Your task to perform on an android device: change text size in settings app Image 0: 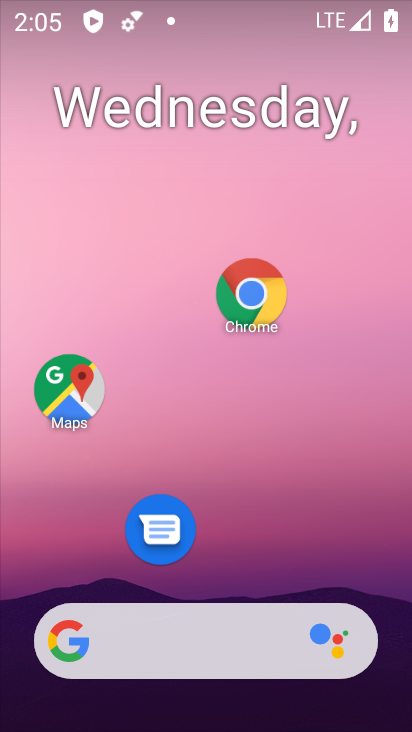
Step 0: drag from (177, 590) to (132, 204)
Your task to perform on an android device: change text size in settings app Image 1: 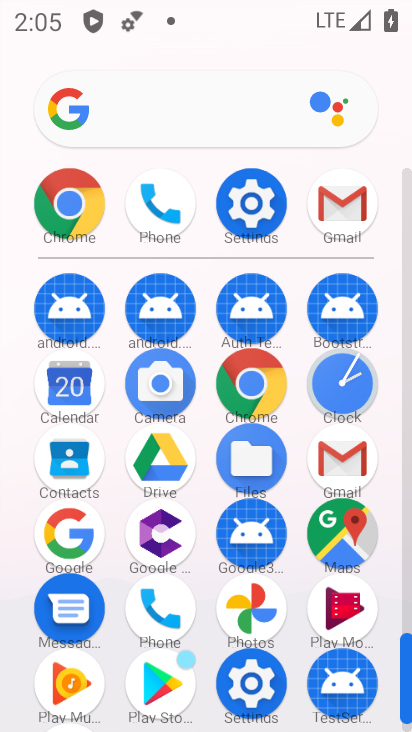
Step 1: click (246, 211)
Your task to perform on an android device: change text size in settings app Image 2: 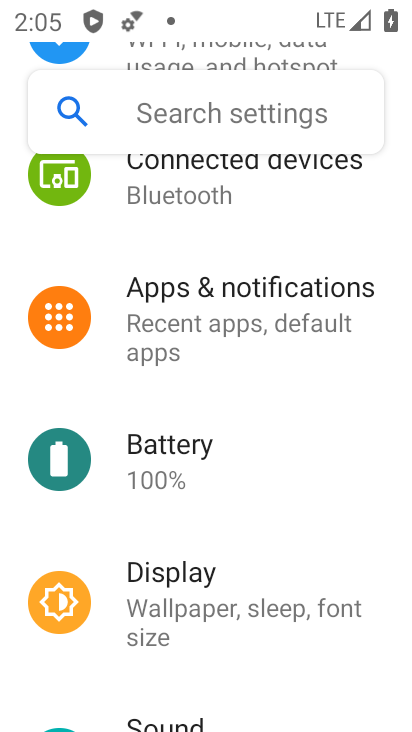
Step 2: click (220, 595)
Your task to perform on an android device: change text size in settings app Image 3: 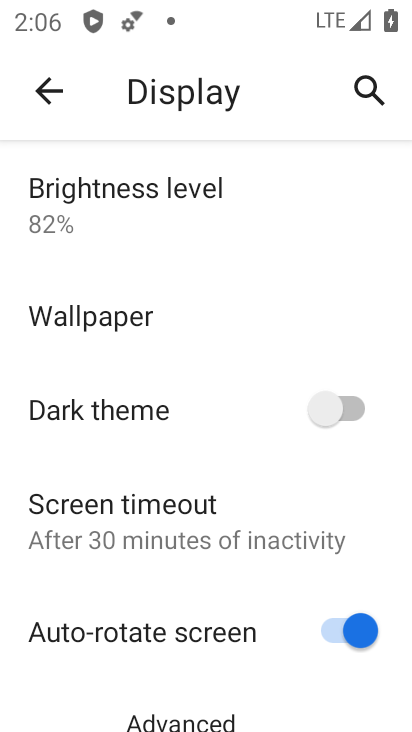
Step 3: drag from (215, 593) to (249, 306)
Your task to perform on an android device: change text size in settings app Image 4: 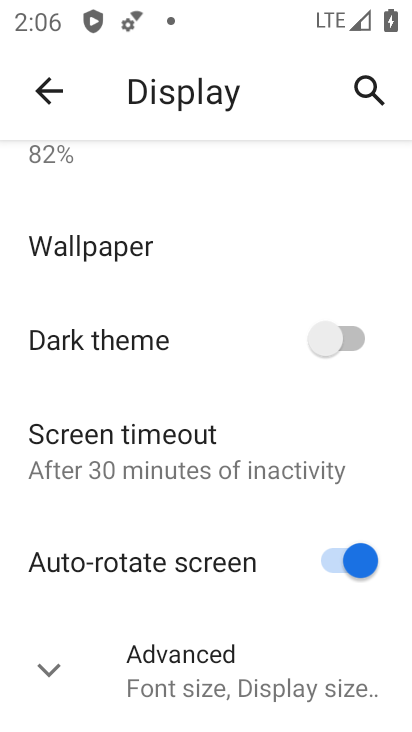
Step 4: click (181, 686)
Your task to perform on an android device: change text size in settings app Image 5: 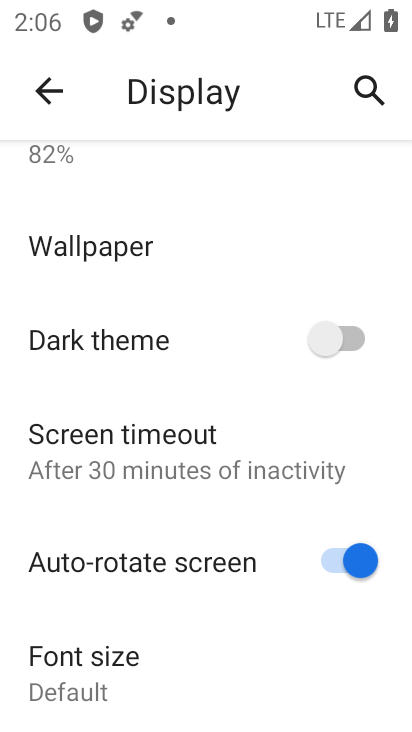
Step 5: click (117, 678)
Your task to perform on an android device: change text size in settings app Image 6: 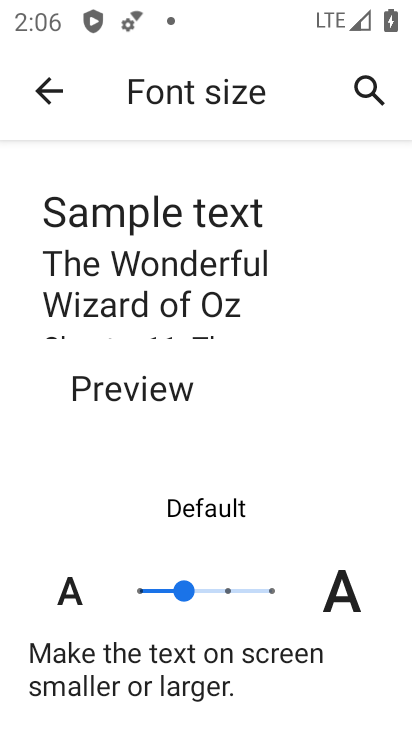
Step 6: click (222, 592)
Your task to perform on an android device: change text size in settings app Image 7: 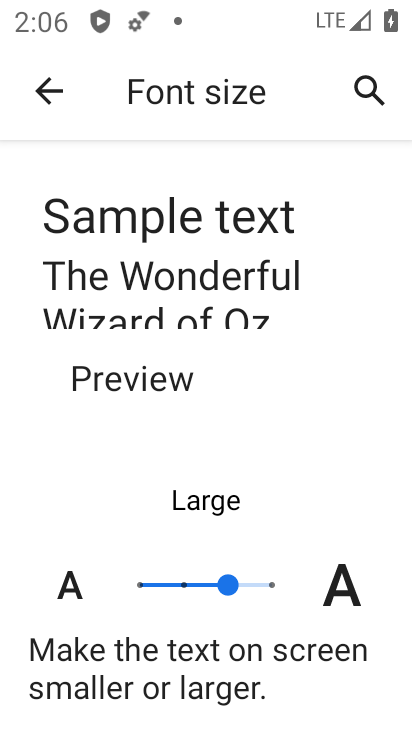
Step 7: task complete